Your task to perform on an android device: Open the calendar app, open the side menu, and click the "Day" option Image 0: 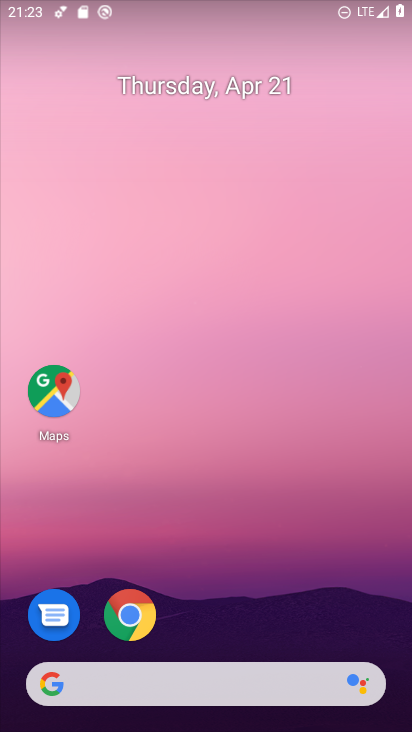
Step 0: drag from (196, 653) to (374, 33)
Your task to perform on an android device: Open the calendar app, open the side menu, and click the "Day" option Image 1: 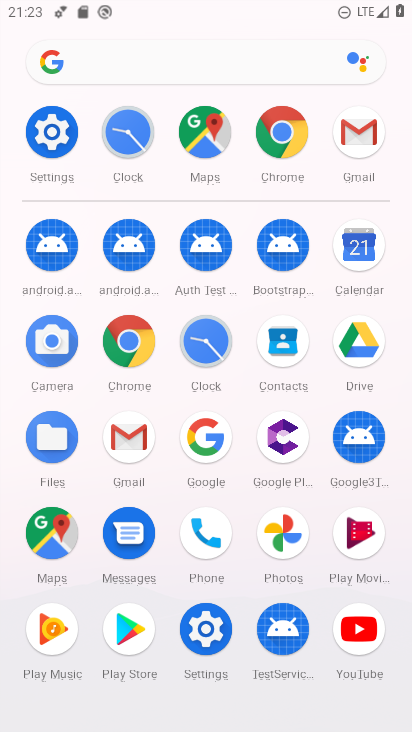
Step 1: click (360, 252)
Your task to perform on an android device: Open the calendar app, open the side menu, and click the "Day" option Image 2: 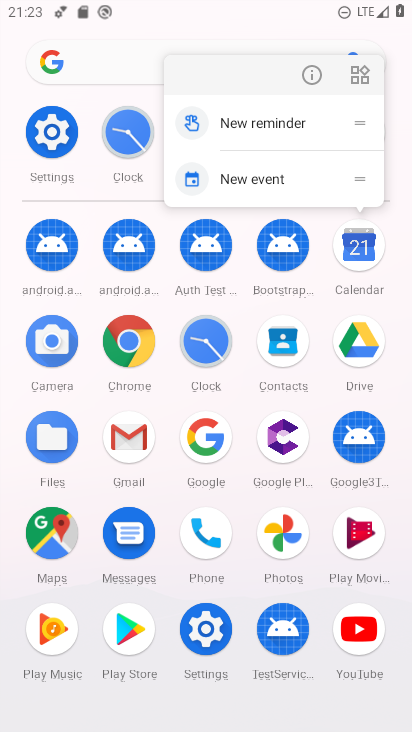
Step 2: click (302, 73)
Your task to perform on an android device: Open the calendar app, open the side menu, and click the "Day" option Image 3: 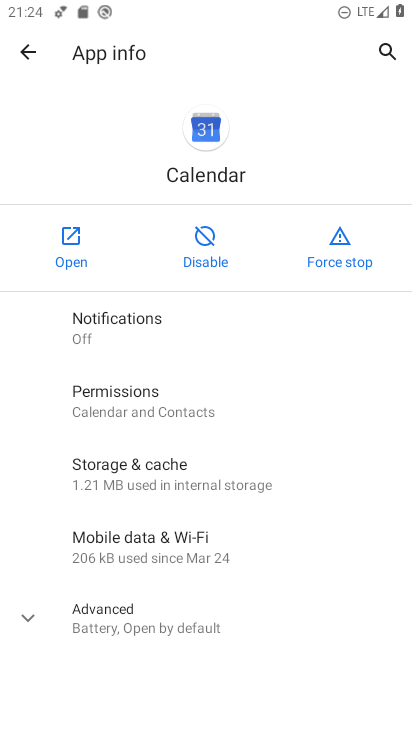
Step 3: click (63, 265)
Your task to perform on an android device: Open the calendar app, open the side menu, and click the "Day" option Image 4: 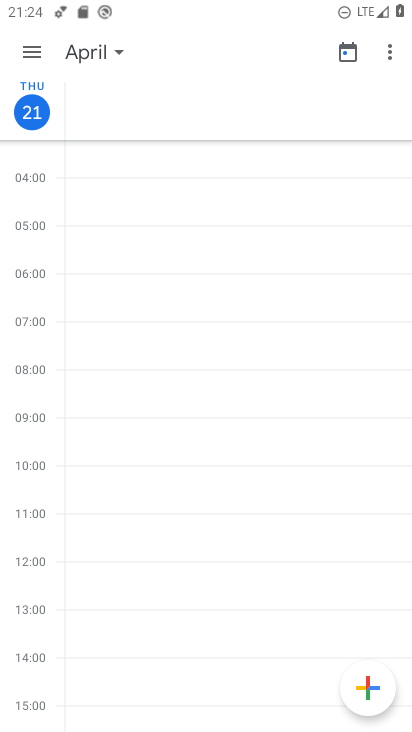
Step 4: click (97, 58)
Your task to perform on an android device: Open the calendar app, open the side menu, and click the "Day" option Image 5: 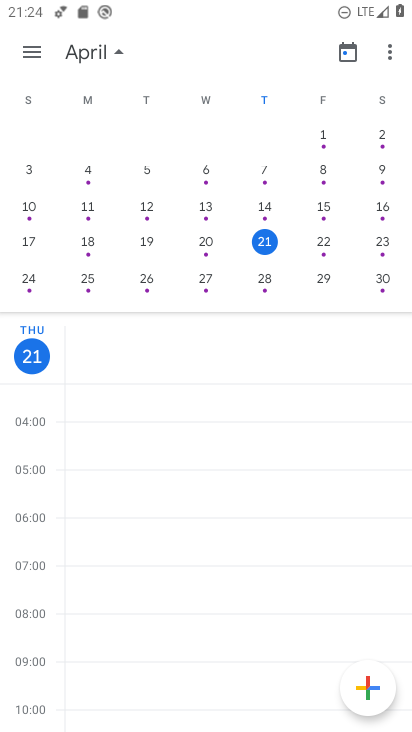
Step 5: click (44, 51)
Your task to perform on an android device: Open the calendar app, open the side menu, and click the "Day" option Image 6: 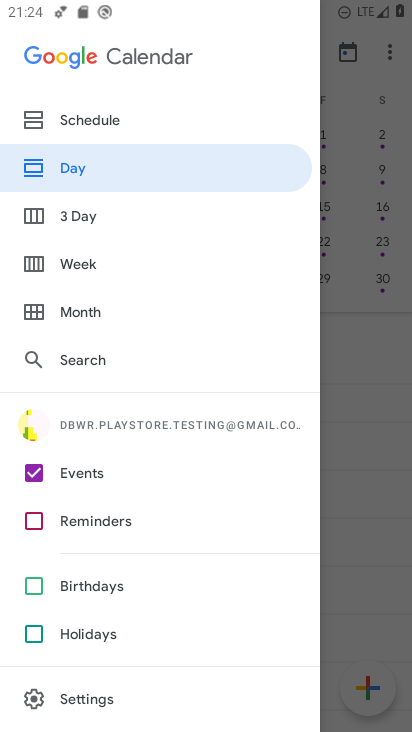
Step 6: click (98, 168)
Your task to perform on an android device: Open the calendar app, open the side menu, and click the "Day" option Image 7: 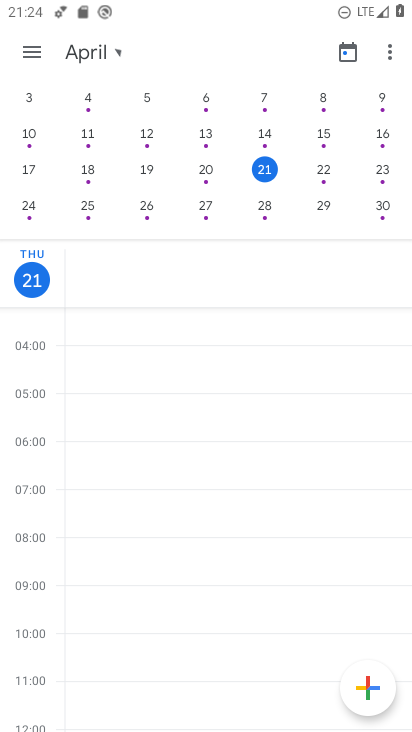
Step 7: task complete